Your task to perform on an android device: toggle wifi Image 0: 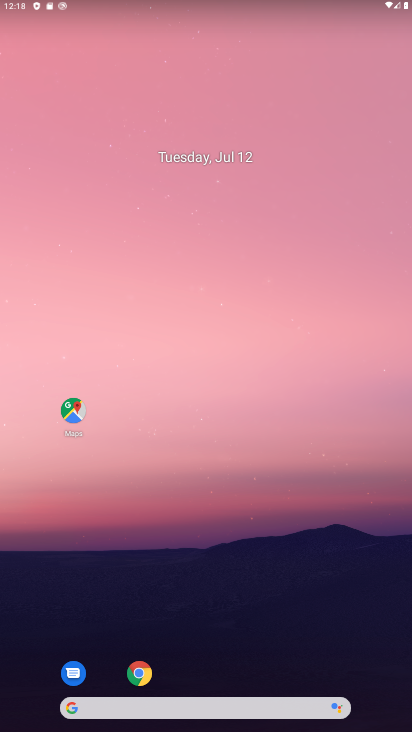
Step 0: drag from (348, 610) to (243, 187)
Your task to perform on an android device: toggle wifi Image 1: 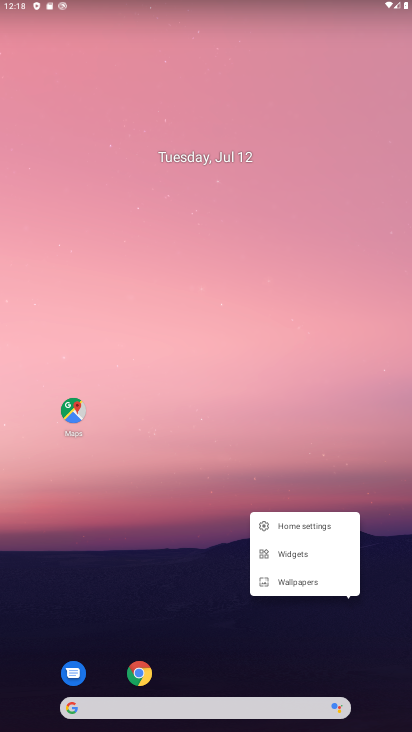
Step 1: drag from (236, 680) to (208, 143)
Your task to perform on an android device: toggle wifi Image 2: 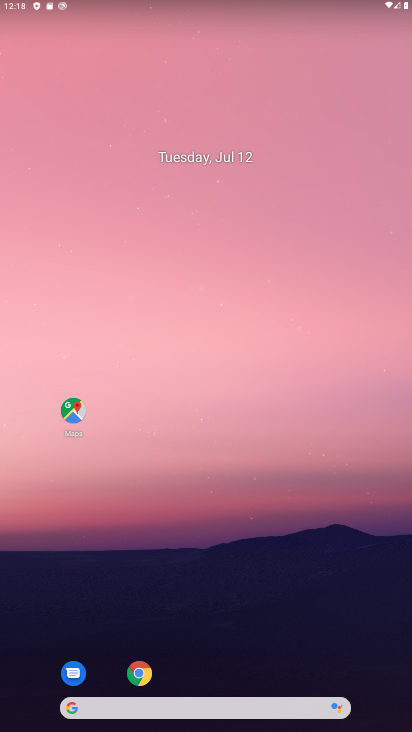
Step 2: drag from (382, 671) to (336, 27)
Your task to perform on an android device: toggle wifi Image 3: 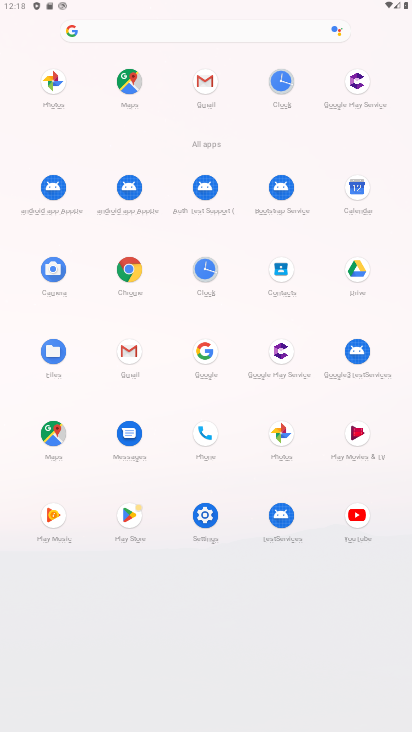
Step 3: click (213, 521)
Your task to perform on an android device: toggle wifi Image 4: 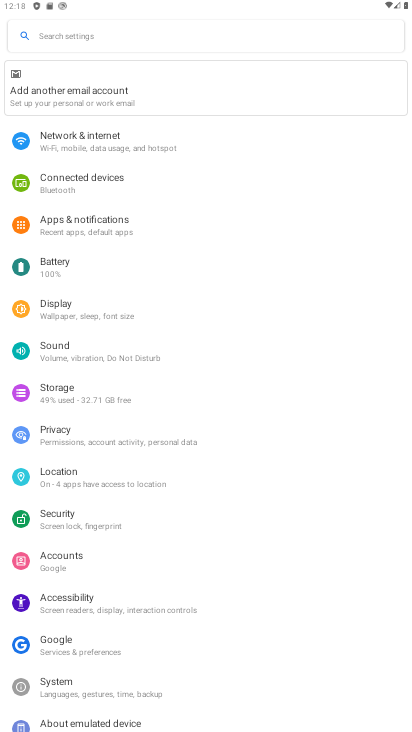
Step 4: click (177, 140)
Your task to perform on an android device: toggle wifi Image 5: 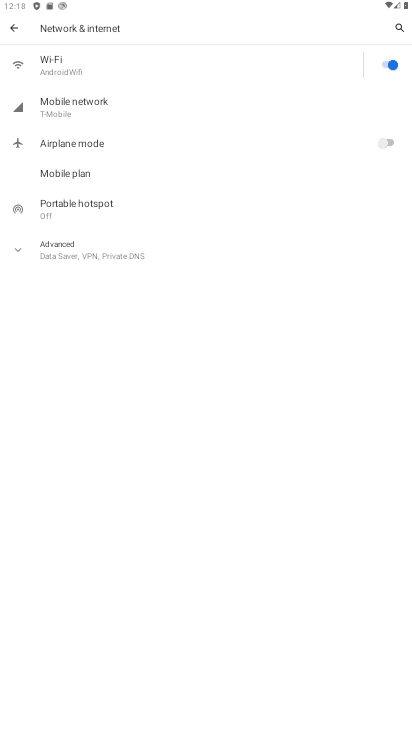
Step 5: click (384, 63)
Your task to perform on an android device: toggle wifi Image 6: 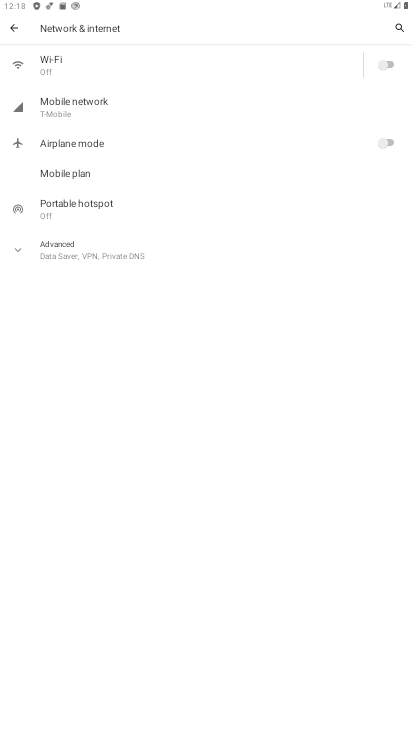
Step 6: task complete